Your task to perform on an android device: show emergency info Image 0: 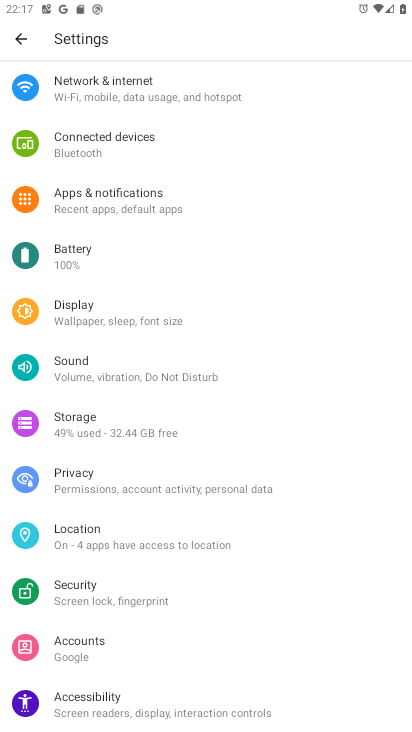
Step 0: click (128, 690)
Your task to perform on an android device: show emergency info Image 1: 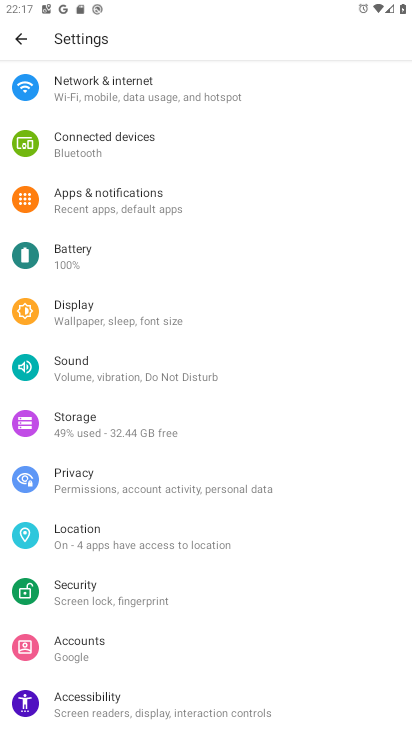
Step 1: drag from (128, 690) to (215, 199)
Your task to perform on an android device: show emergency info Image 2: 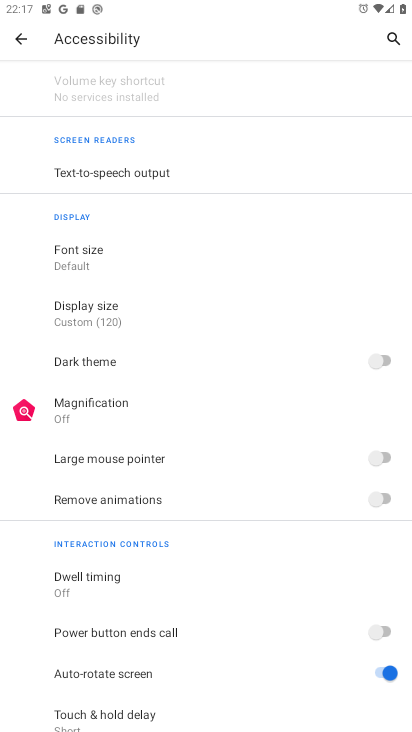
Step 2: click (24, 31)
Your task to perform on an android device: show emergency info Image 3: 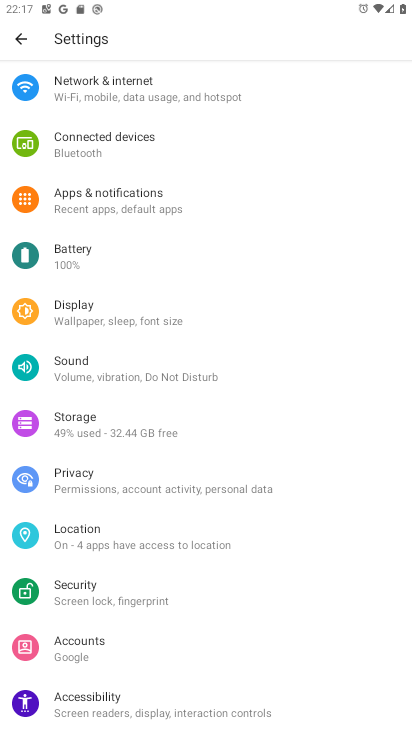
Step 3: drag from (111, 651) to (183, 78)
Your task to perform on an android device: show emergency info Image 4: 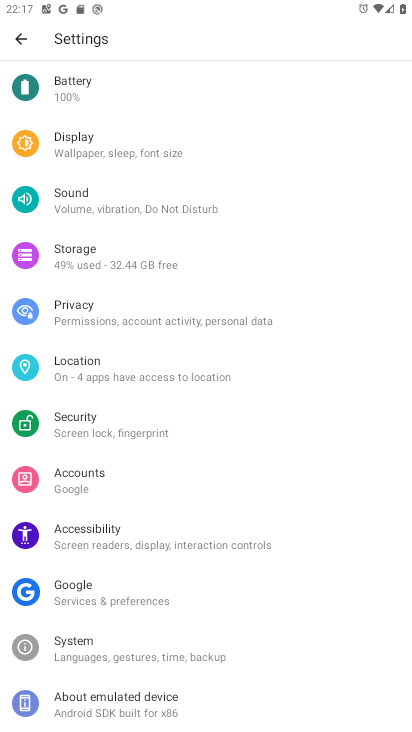
Step 4: drag from (75, 639) to (153, 252)
Your task to perform on an android device: show emergency info Image 5: 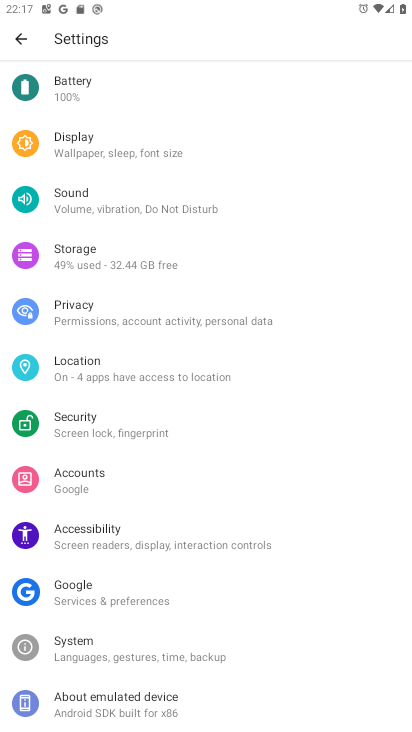
Step 5: drag from (112, 663) to (151, 262)
Your task to perform on an android device: show emergency info Image 6: 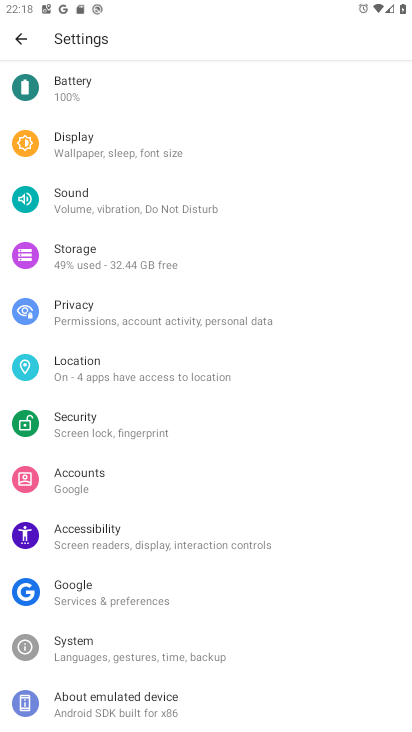
Step 6: click (102, 696)
Your task to perform on an android device: show emergency info Image 7: 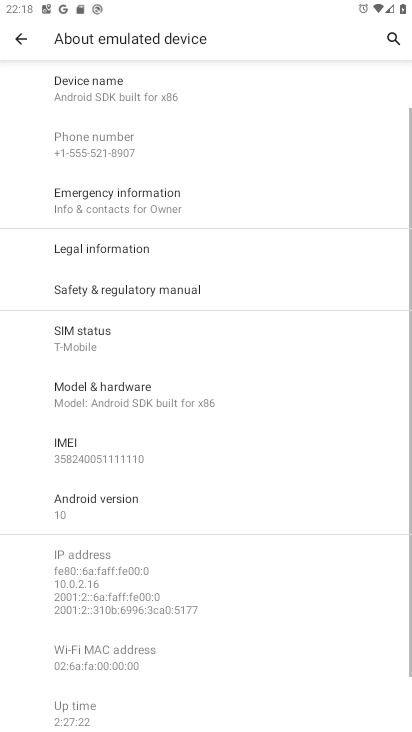
Step 7: click (162, 198)
Your task to perform on an android device: show emergency info Image 8: 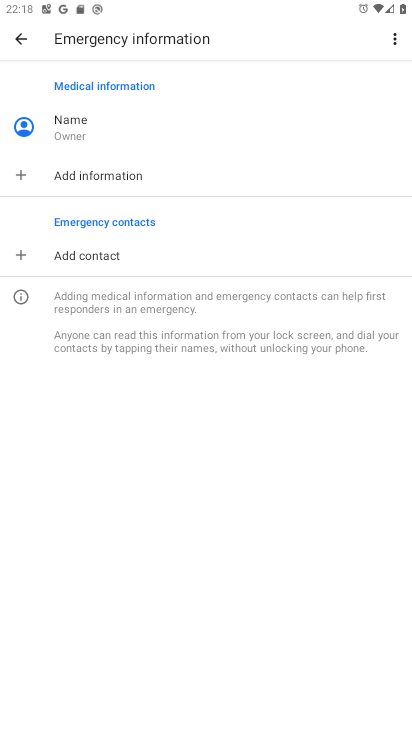
Step 8: task complete